Your task to perform on an android device: open app "The Home Depot" (install if not already installed) Image 0: 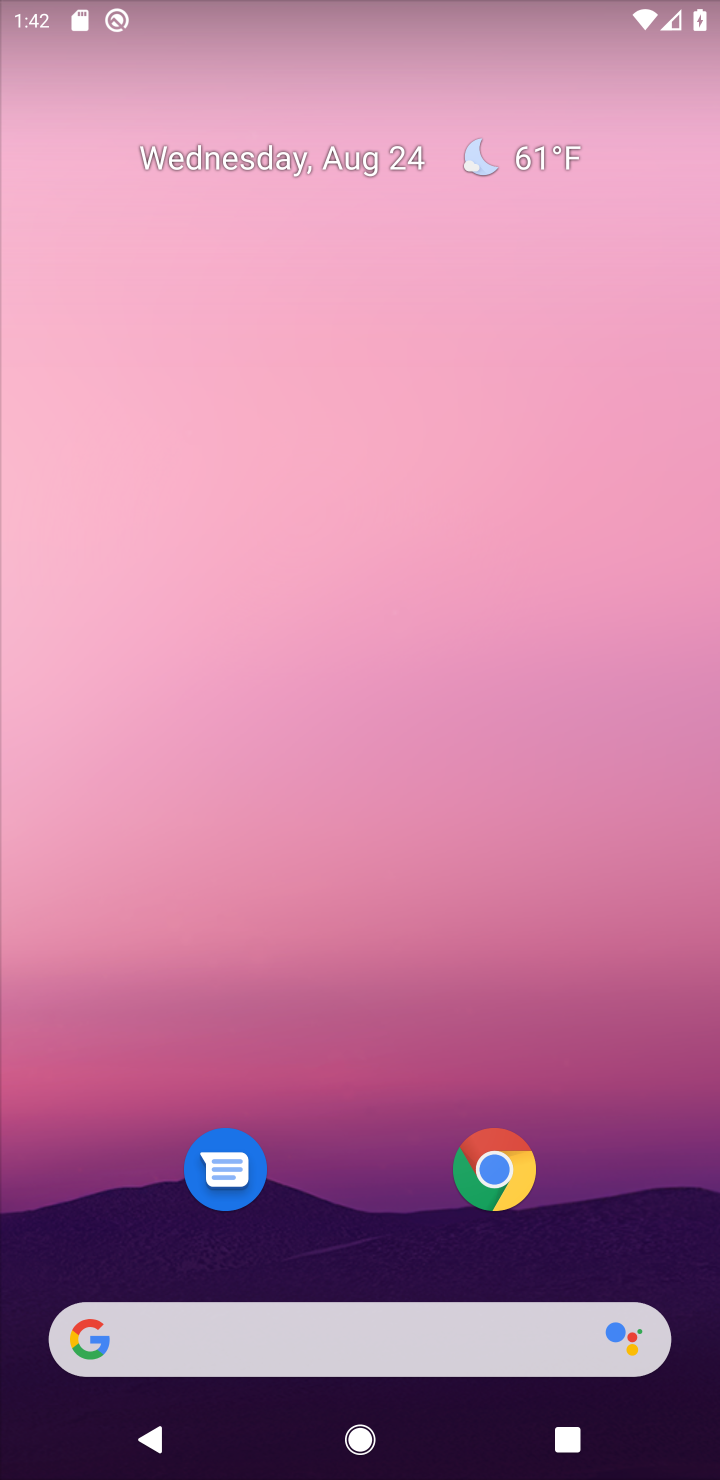
Step 0: press back button
Your task to perform on an android device: open app "The Home Depot" (install if not already installed) Image 1: 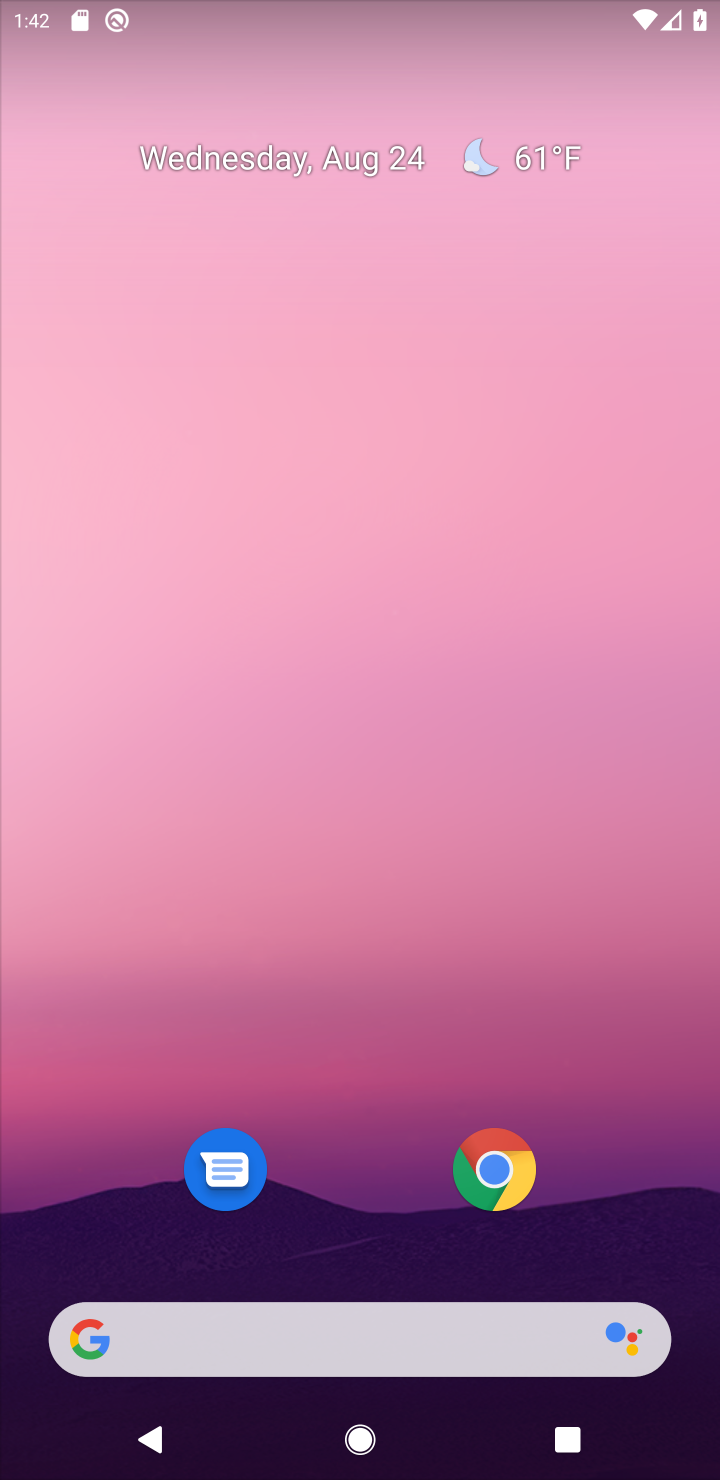
Step 1: drag from (372, 1279) to (232, 295)
Your task to perform on an android device: open app "The Home Depot" (install if not already installed) Image 2: 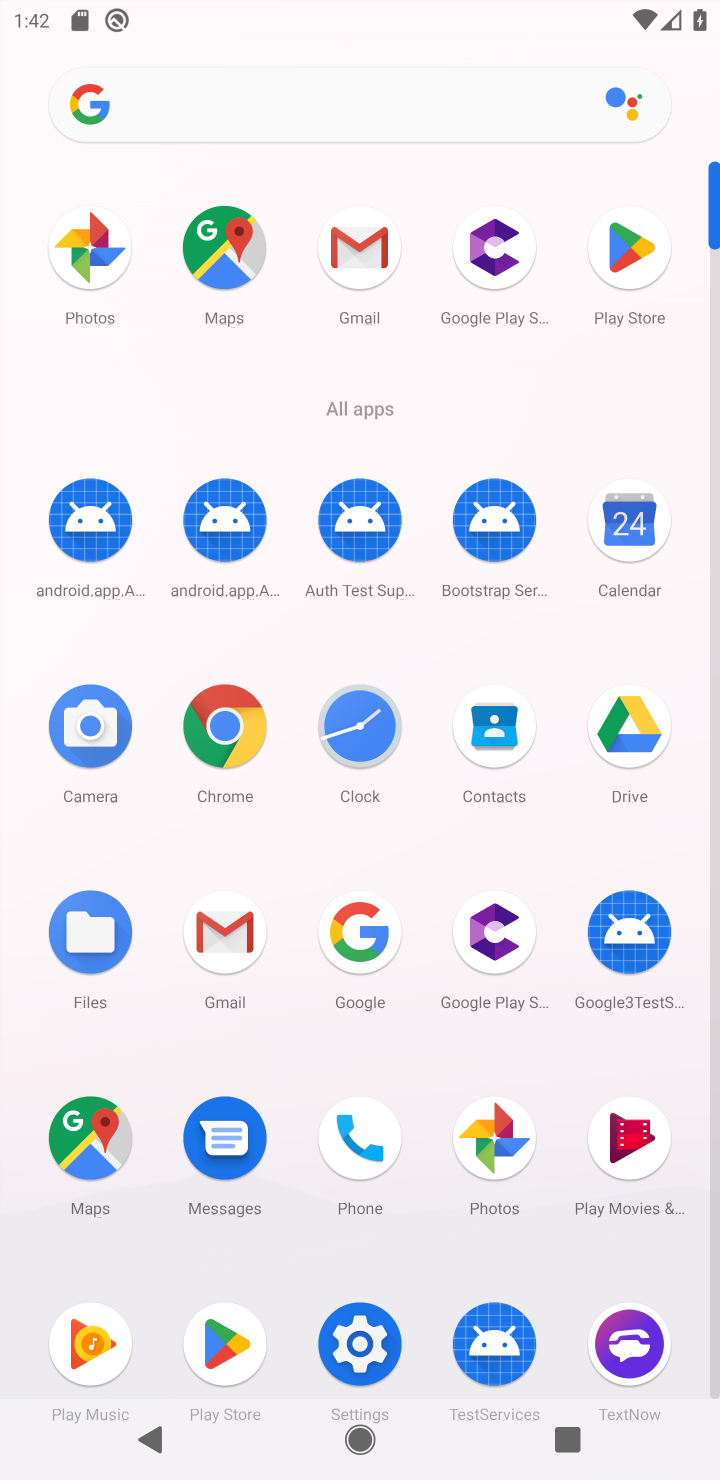
Step 2: click (652, 268)
Your task to perform on an android device: open app "The Home Depot" (install if not already installed) Image 3: 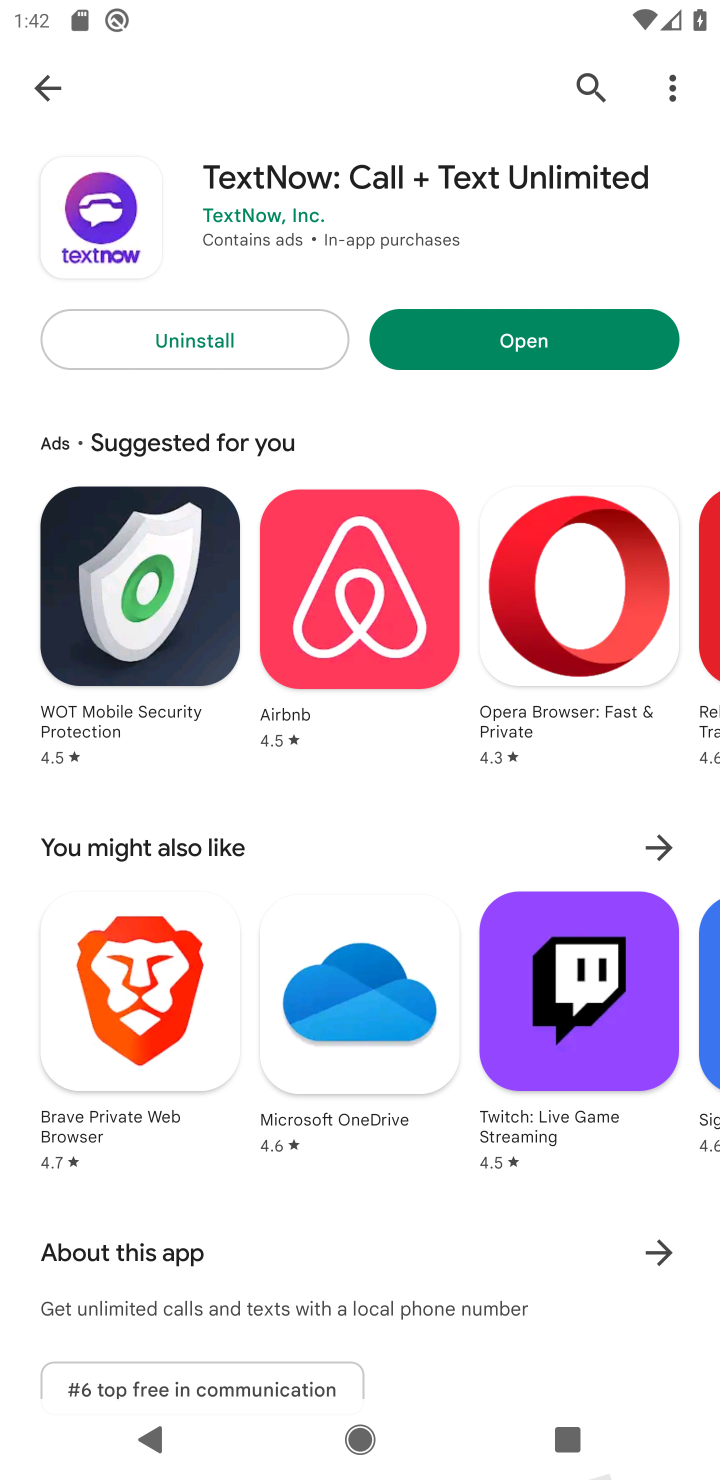
Step 3: click (60, 85)
Your task to perform on an android device: open app "The Home Depot" (install if not already installed) Image 4: 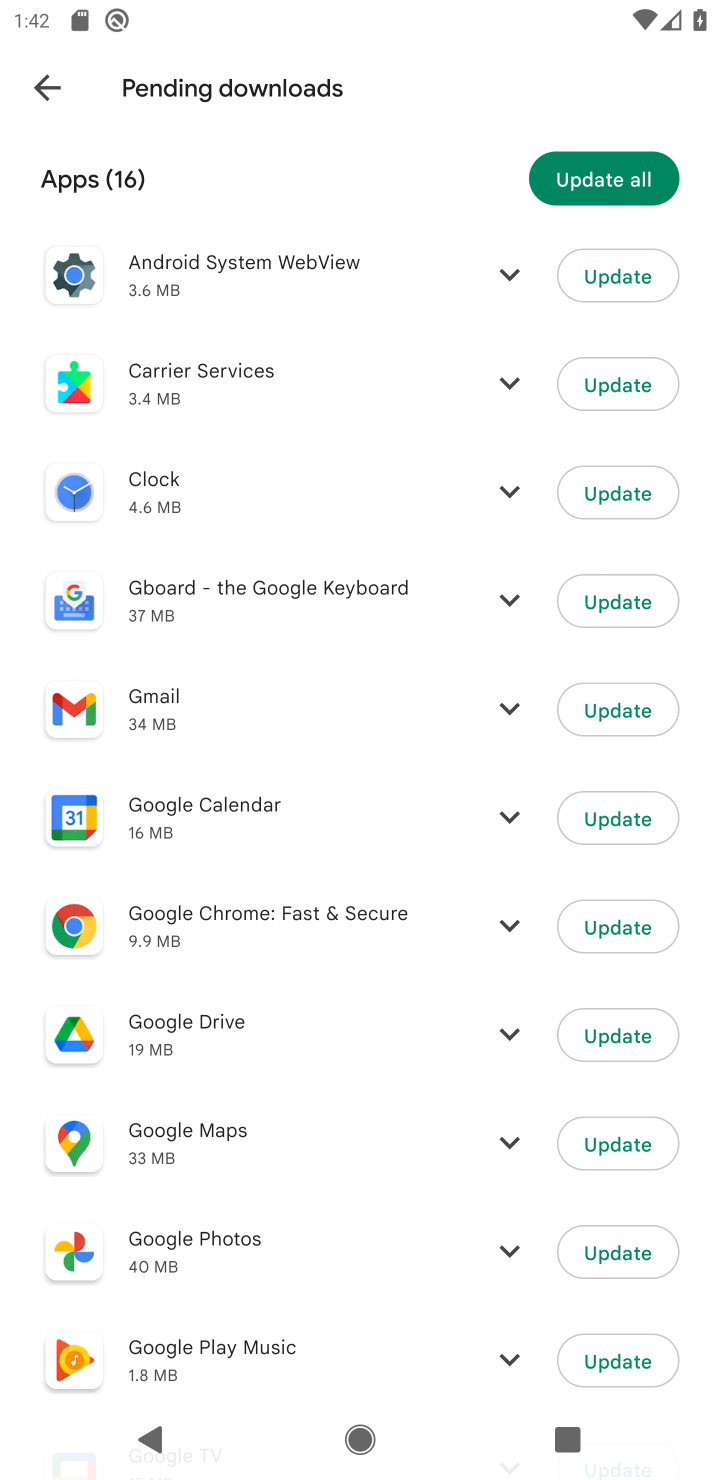
Step 4: click (60, 85)
Your task to perform on an android device: open app "The Home Depot" (install if not already installed) Image 5: 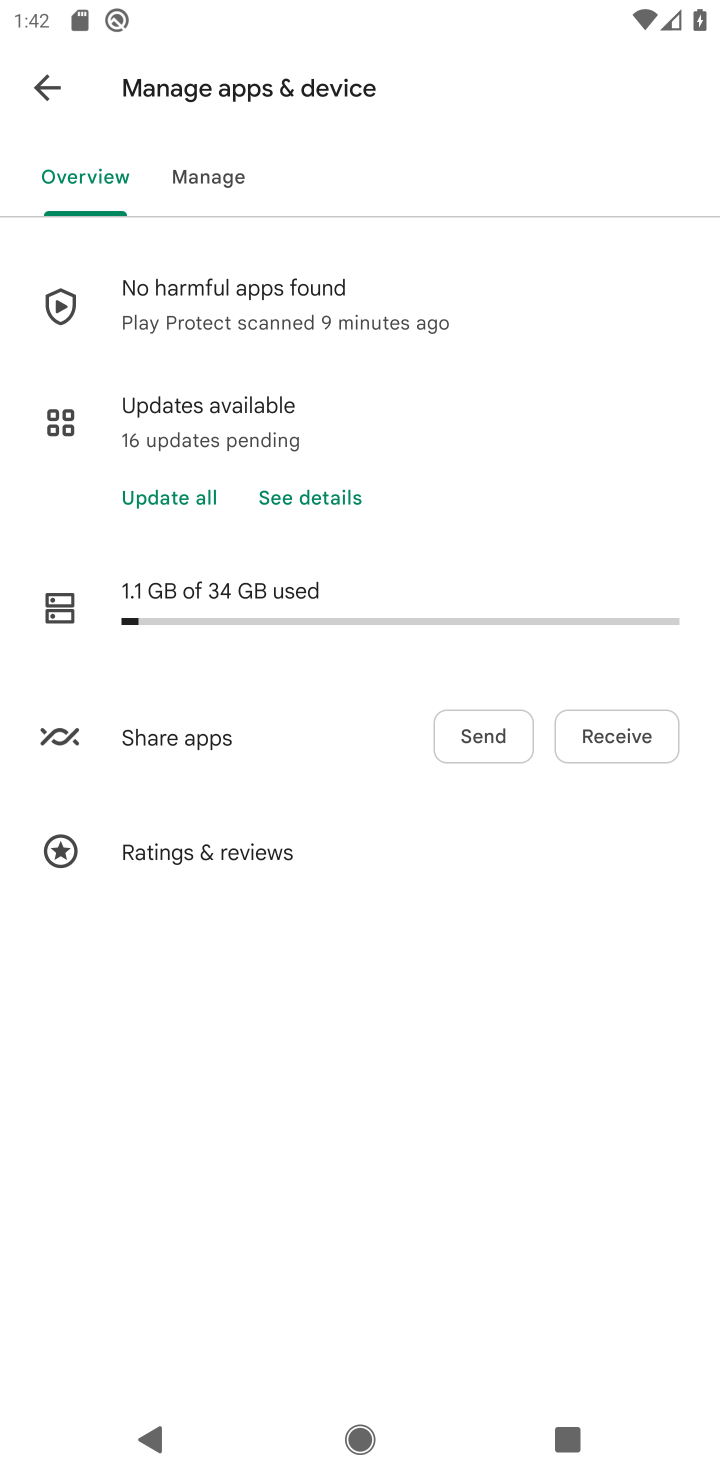
Step 5: click (35, 83)
Your task to perform on an android device: open app "The Home Depot" (install if not already installed) Image 6: 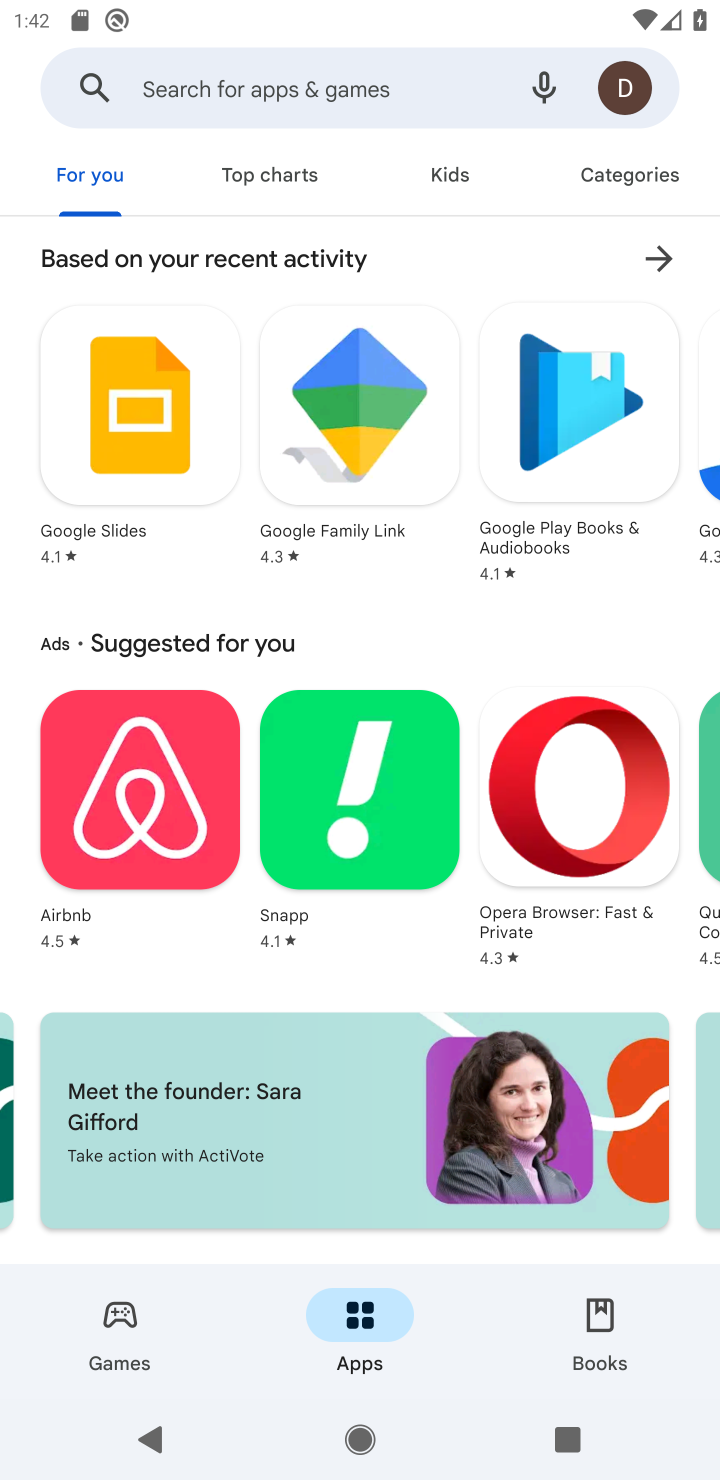
Step 6: click (112, 92)
Your task to perform on an android device: open app "The Home Depot" (install if not already installed) Image 7: 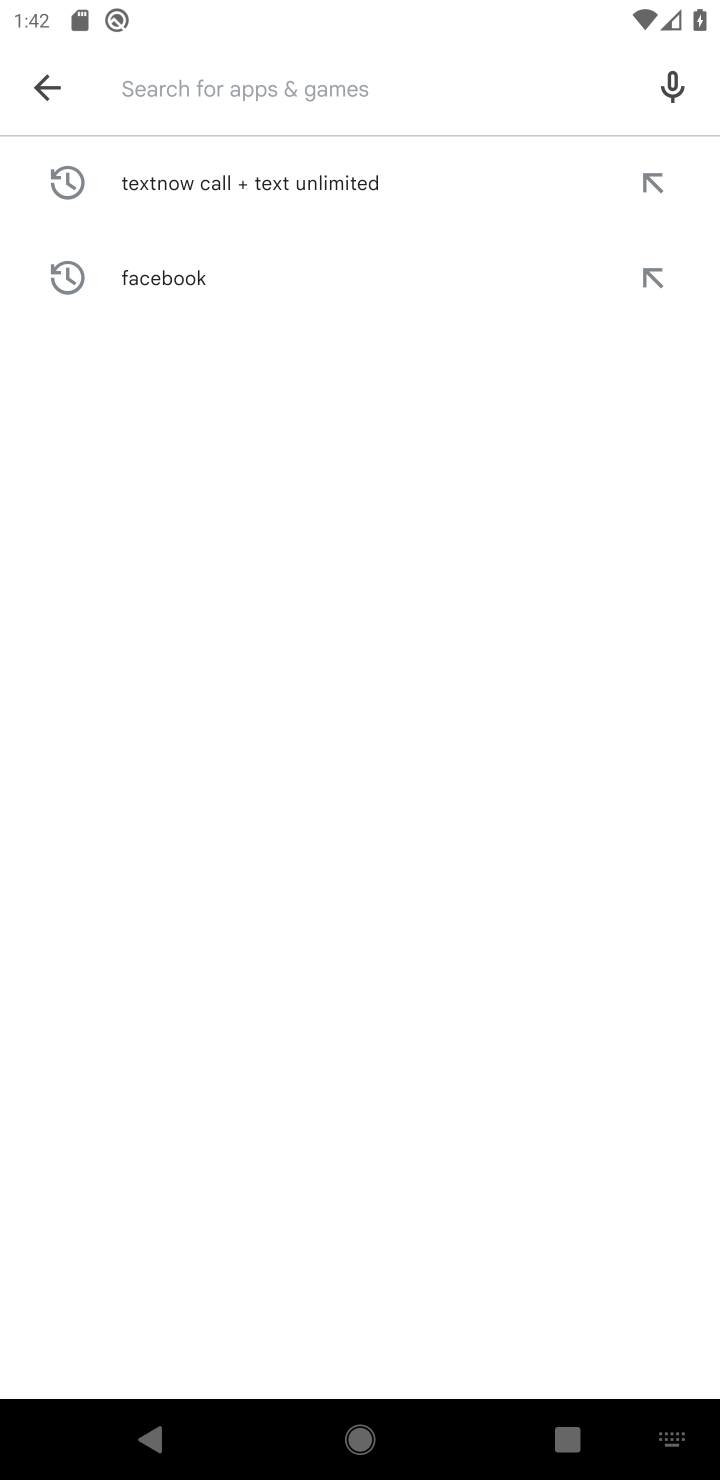
Step 7: type "The Home Depot"
Your task to perform on an android device: open app "The Home Depot" (install if not already installed) Image 8: 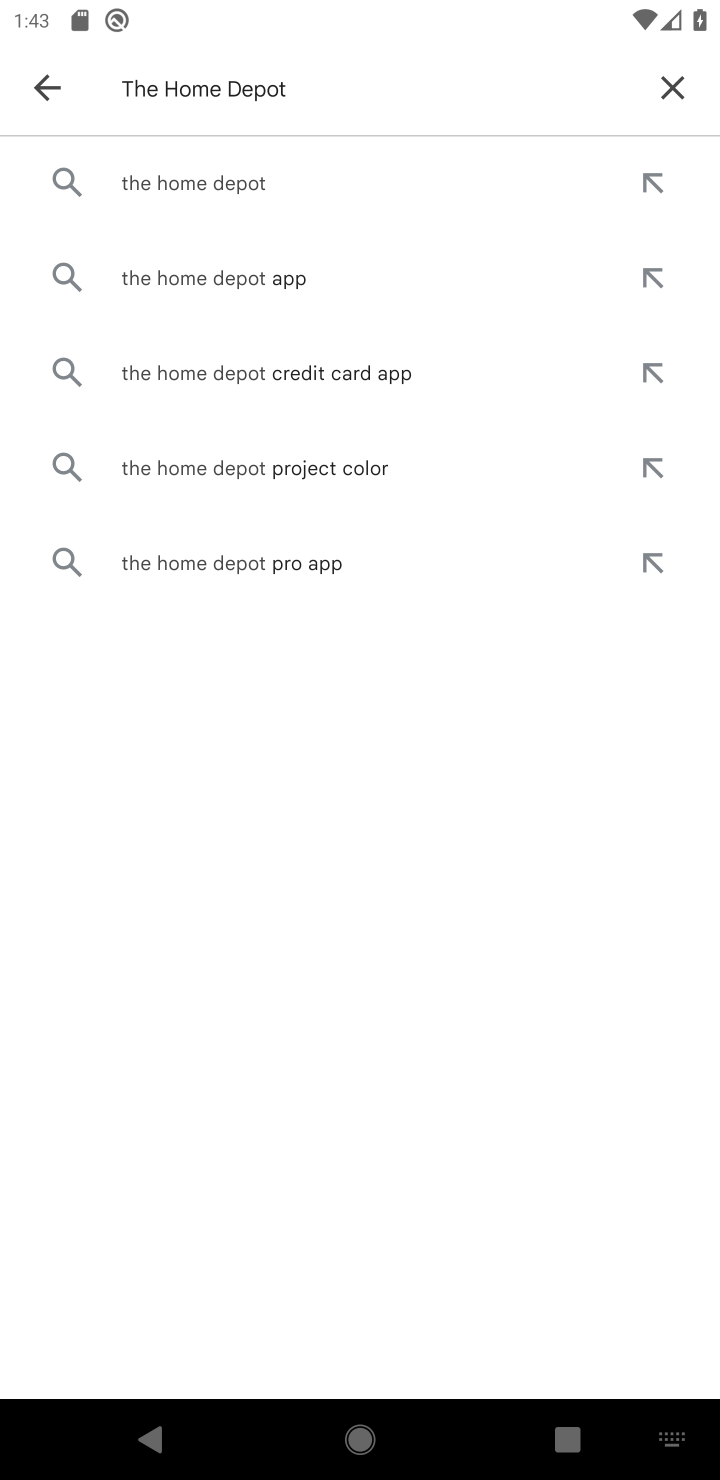
Step 8: click (182, 185)
Your task to perform on an android device: open app "The Home Depot" (install if not already installed) Image 9: 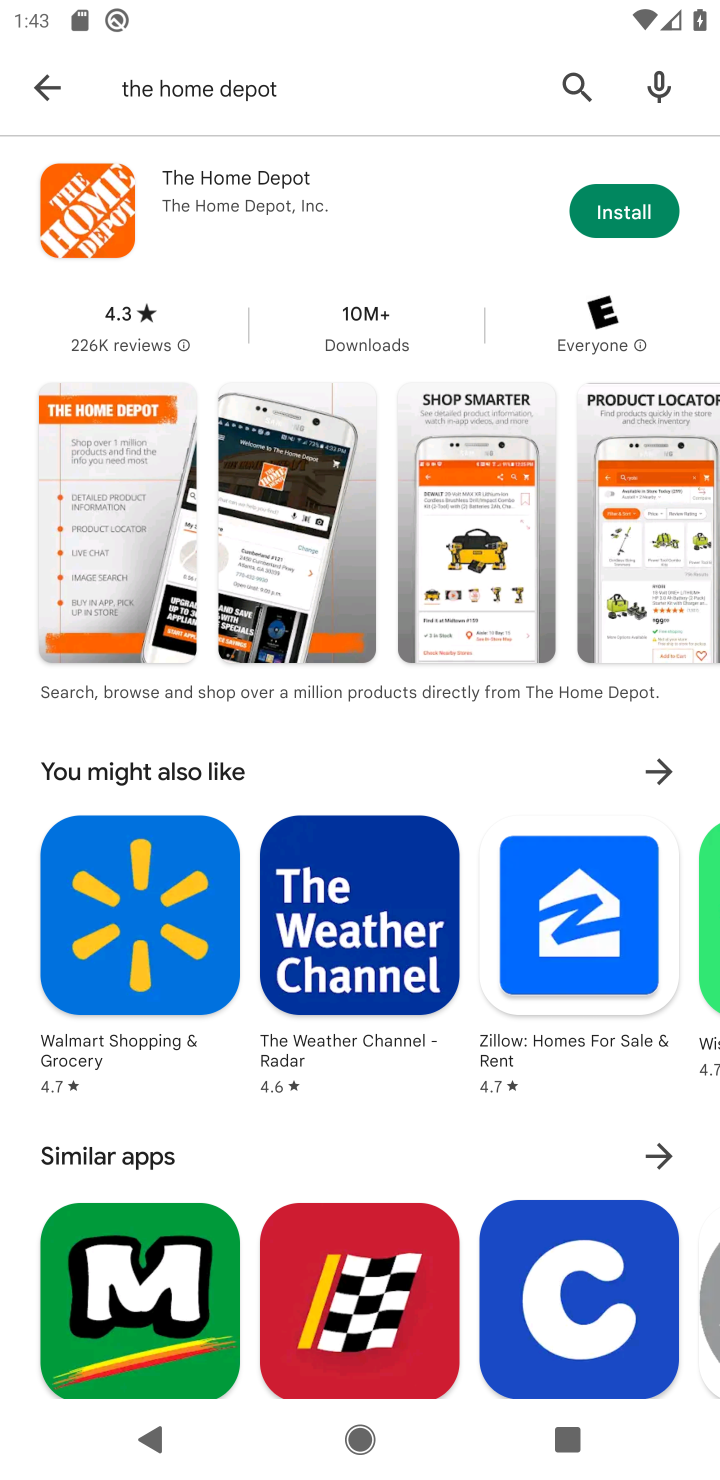
Step 9: click (633, 222)
Your task to perform on an android device: open app "The Home Depot" (install if not already installed) Image 10: 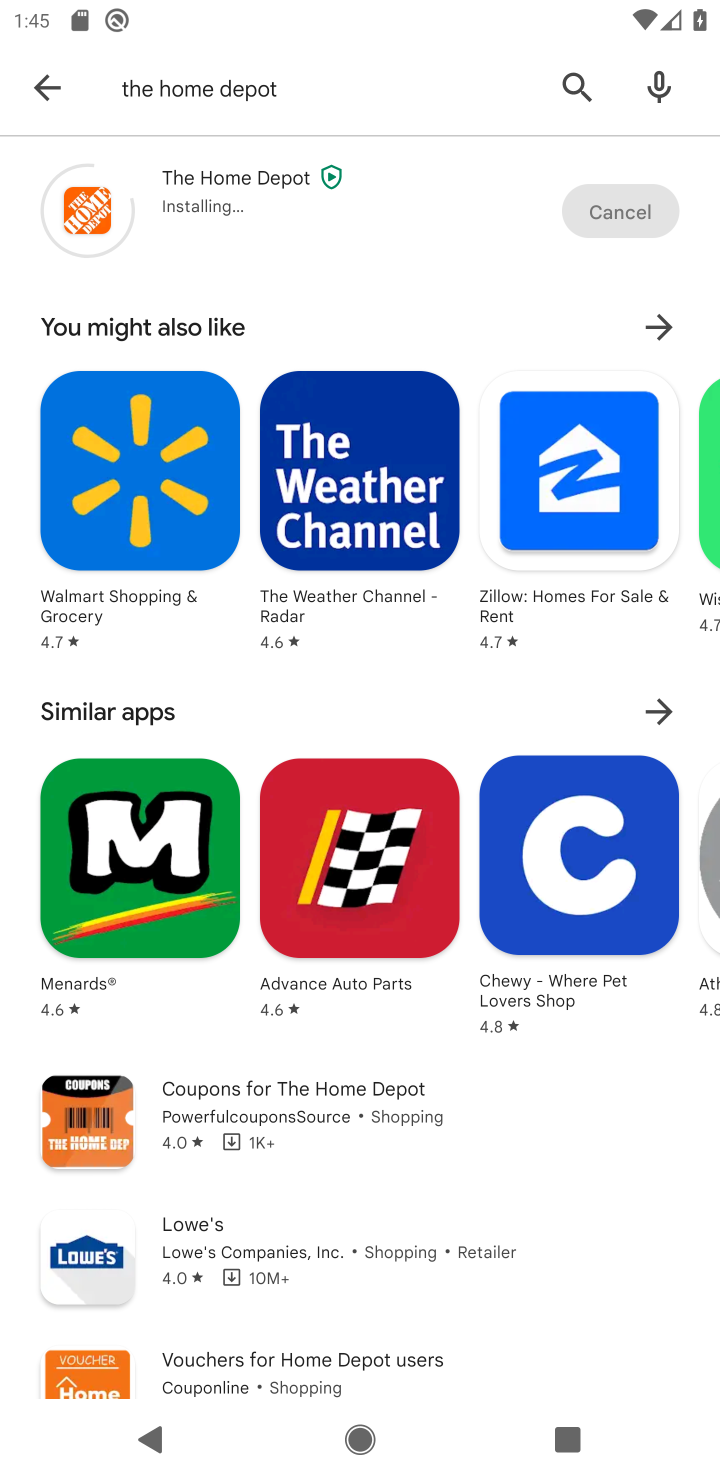
Step 10: task complete